Your task to perform on an android device: Search for "dell xps" on amazon, select the first entry, and add it to the cart. Image 0: 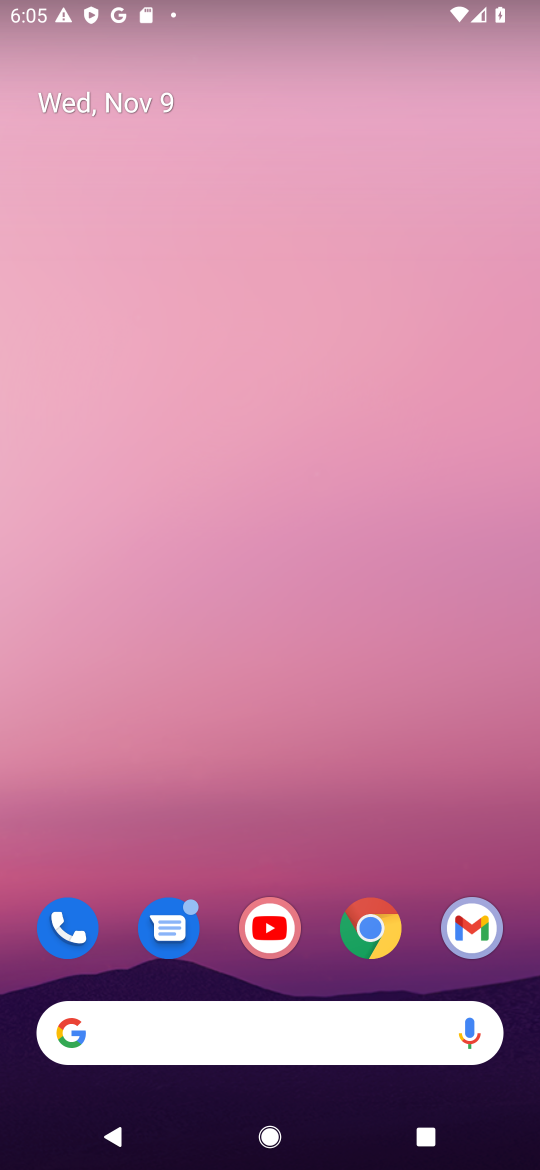
Step 0: click (380, 930)
Your task to perform on an android device: Search for "dell xps" on amazon, select the first entry, and add it to the cart. Image 1: 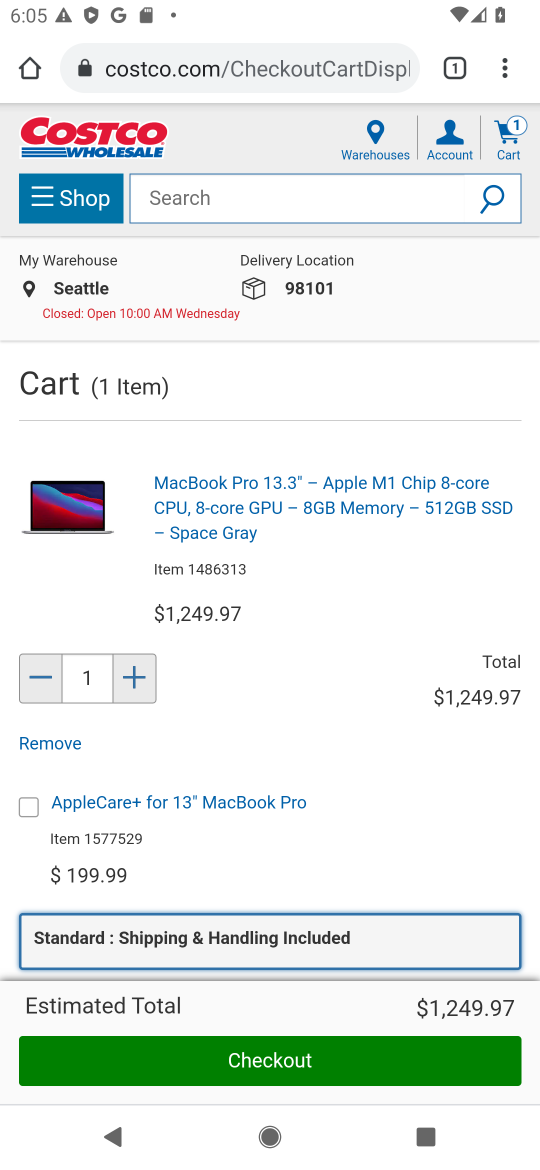
Step 1: click (361, 61)
Your task to perform on an android device: Search for "dell xps" on amazon, select the first entry, and add it to the cart. Image 2: 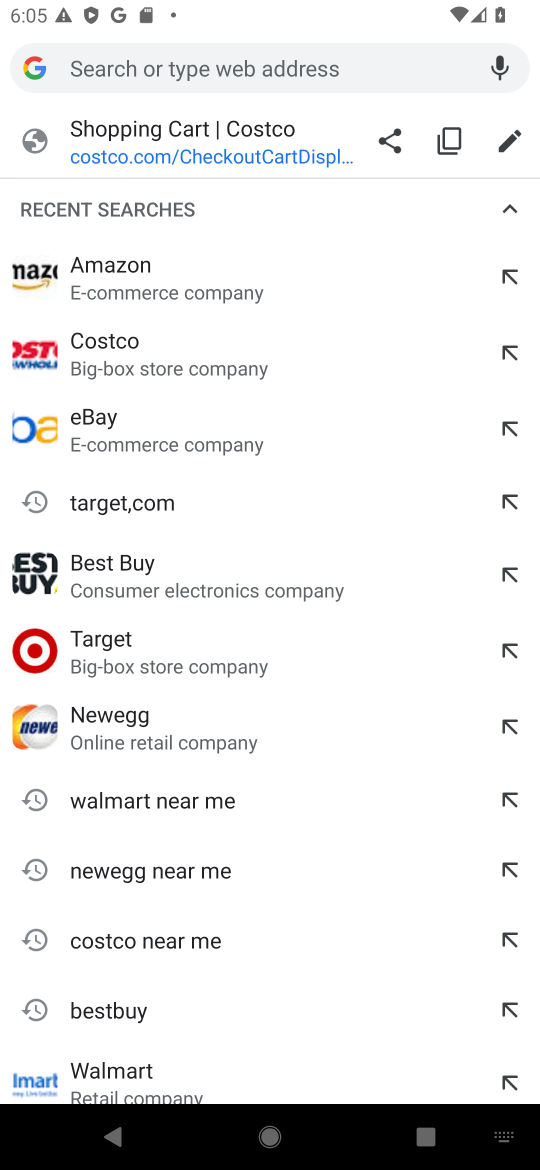
Step 2: click (130, 285)
Your task to perform on an android device: Search for "dell xps" on amazon, select the first entry, and add it to the cart. Image 3: 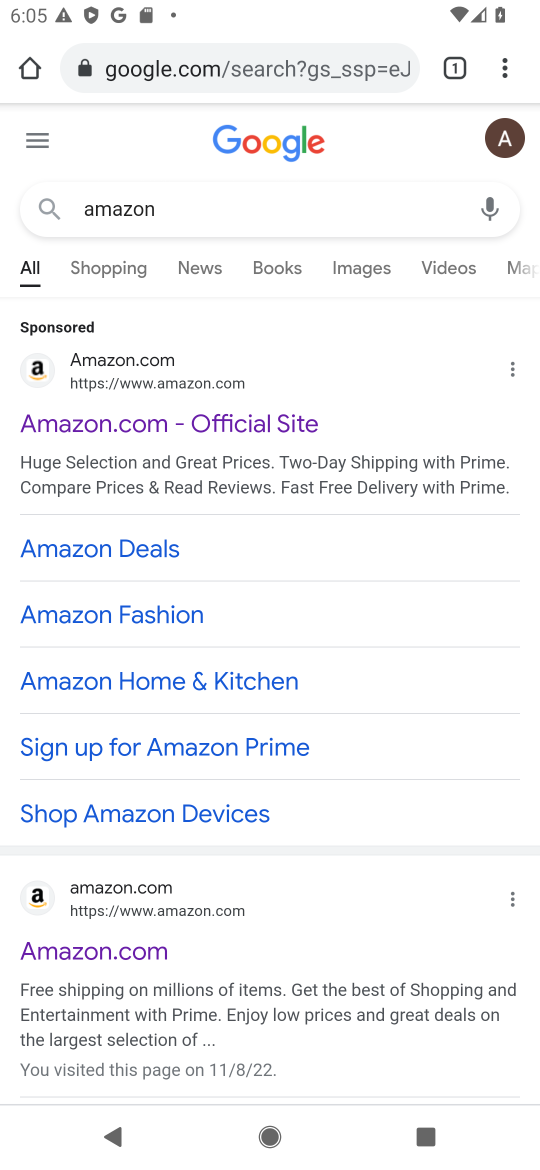
Step 3: click (233, 420)
Your task to perform on an android device: Search for "dell xps" on amazon, select the first entry, and add it to the cart. Image 4: 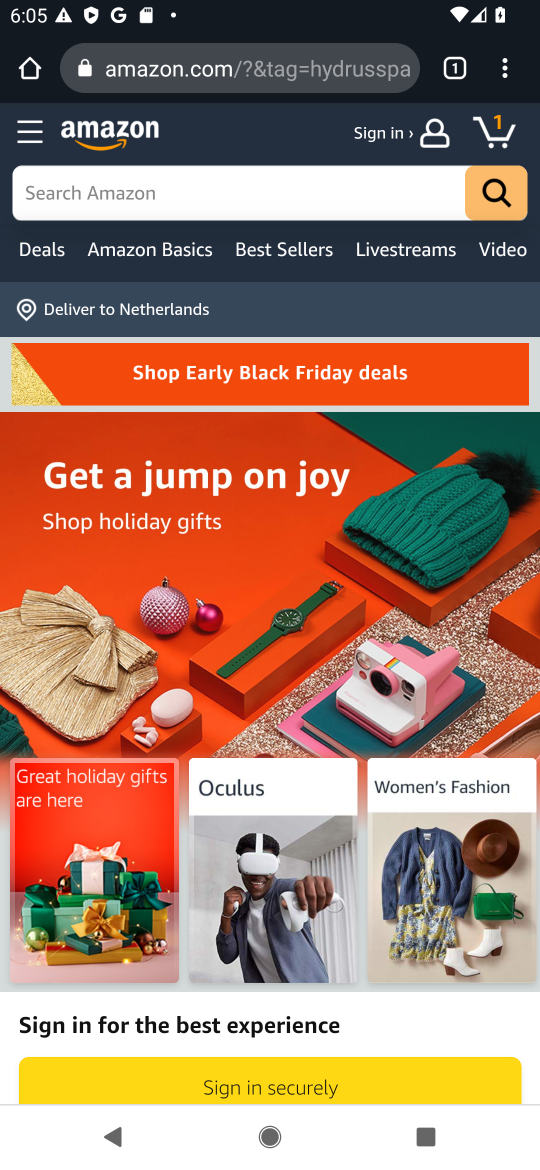
Step 4: click (160, 185)
Your task to perform on an android device: Search for "dell xps" on amazon, select the first entry, and add it to the cart. Image 5: 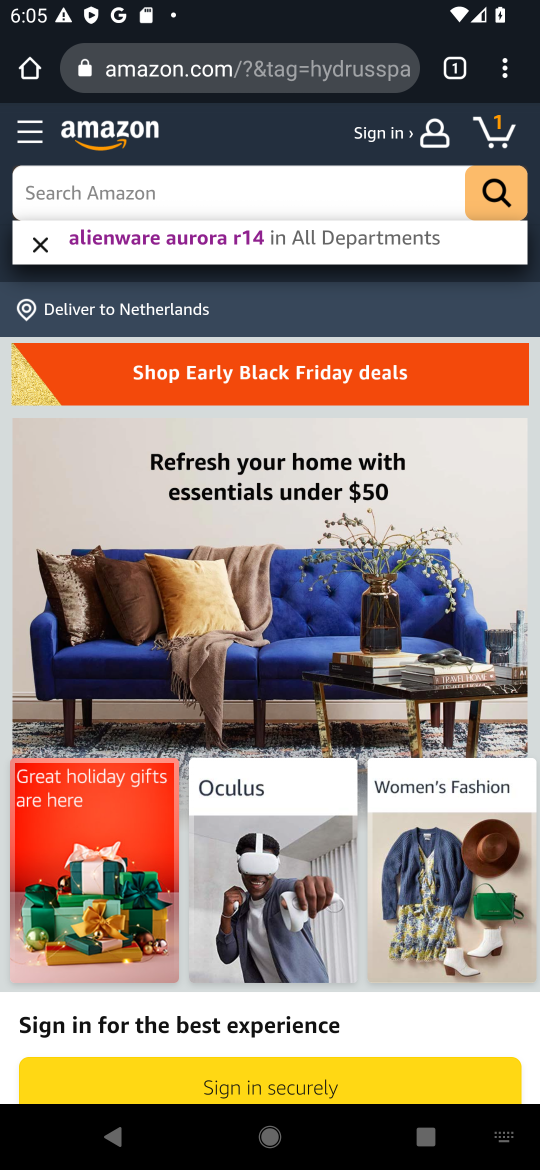
Step 5: type "dell xps"
Your task to perform on an android device: Search for "dell xps" on amazon, select the first entry, and add it to the cart. Image 6: 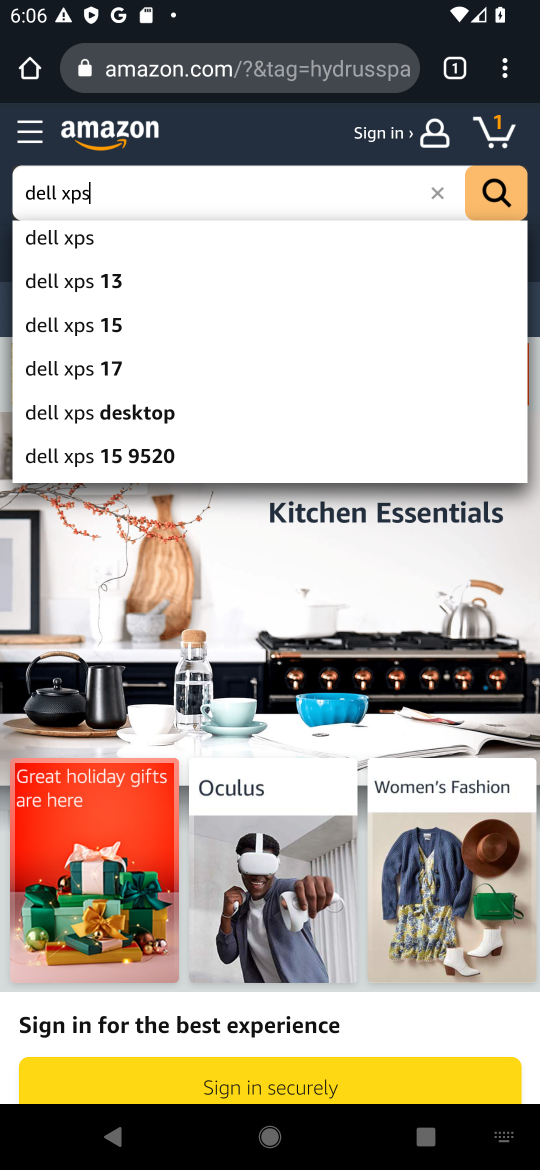
Step 6: click (38, 229)
Your task to perform on an android device: Search for "dell xps" on amazon, select the first entry, and add it to the cart. Image 7: 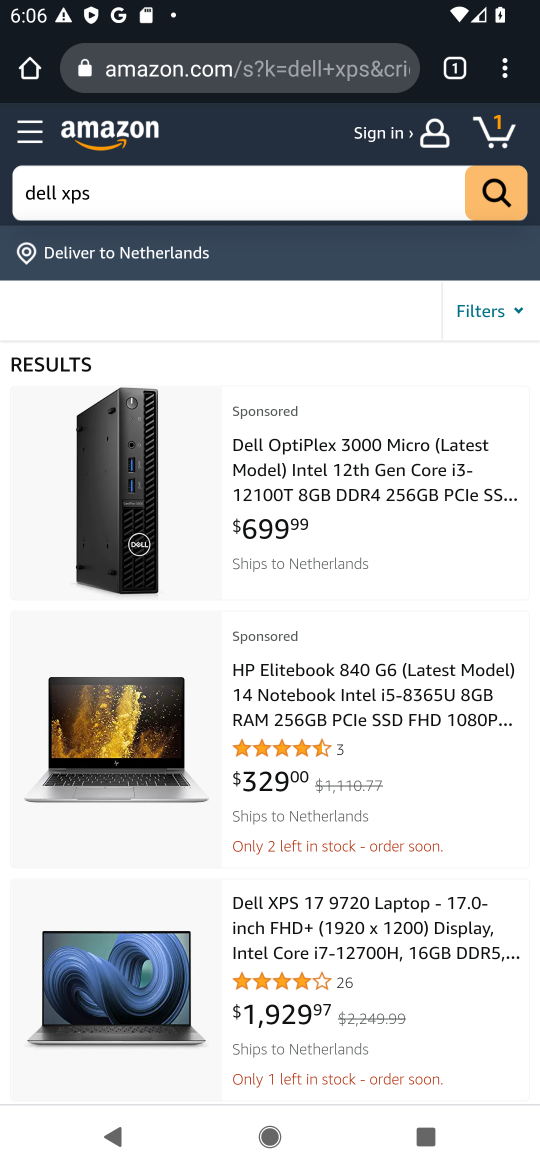
Step 7: click (315, 921)
Your task to perform on an android device: Search for "dell xps" on amazon, select the first entry, and add it to the cart. Image 8: 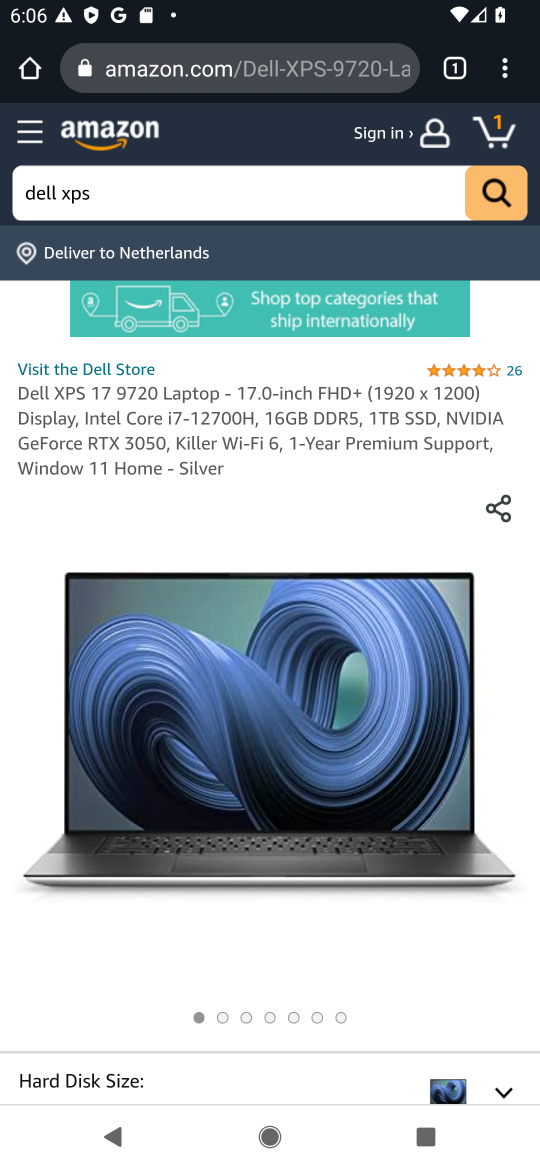
Step 8: drag from (262, 1041) to (381, 435)
Your task to perform on an android device: Search for "dell xps" on amazon, select the first entry, and add it to the cart. Image 9: 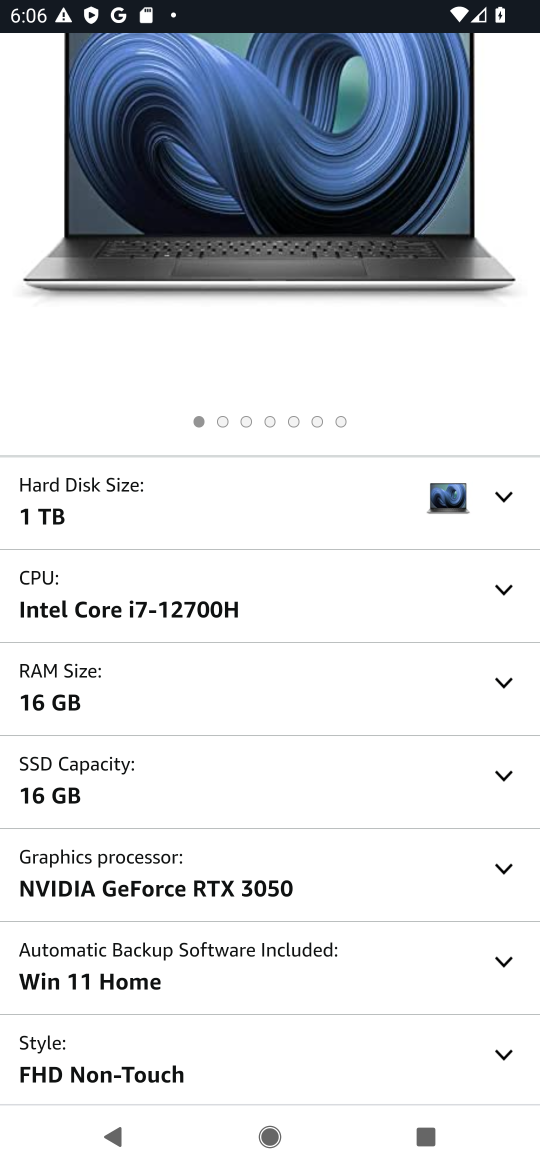
Step 9: drag from (289, 772) to (406, 252)
Your task to perform on an android device: Search for "dell xps" on amazon, select the first entry, and add it to the cart. Image 10: 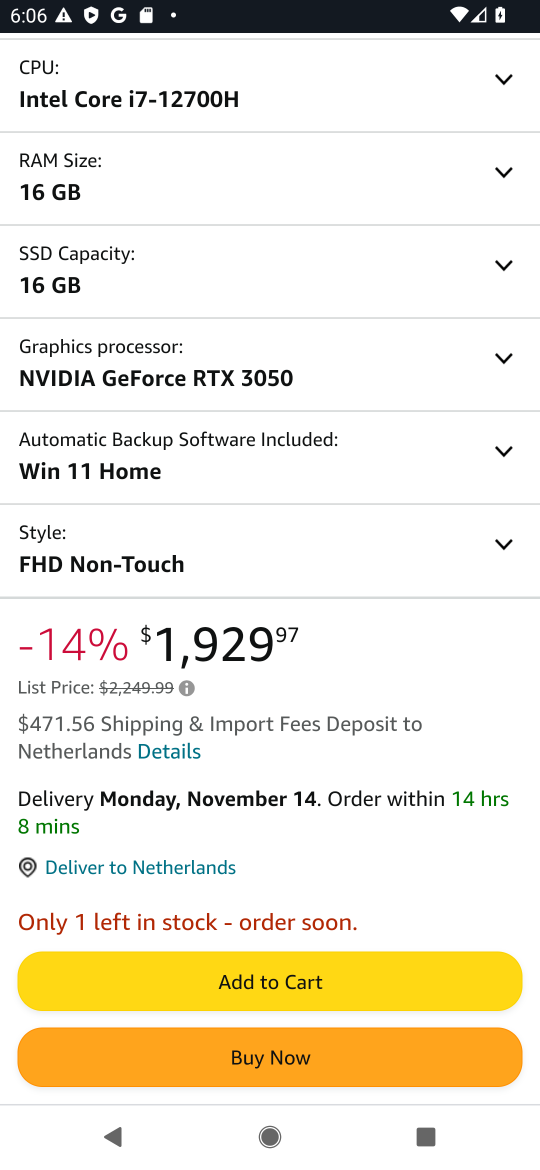
Step 10: click (264, 974)
Your task to perform on an android device: Search for "dell xps" on amazon, select the first entry, and add it to the cart. Image 11: 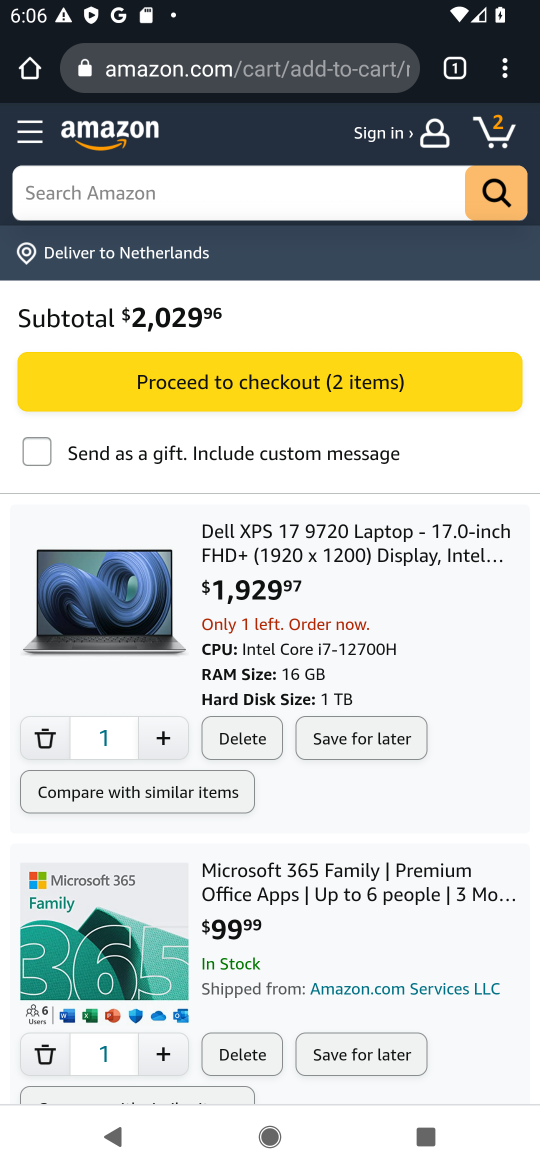
Step 11: task complete